Your task to perform on an android device: Open Reddit.com Image 0: 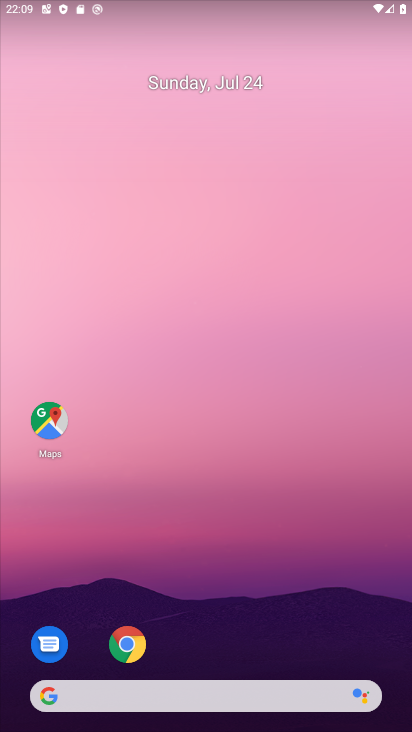
Step 0: click (130, 647)
Your task to perform on an android device: Open Reddit.com Image 1: 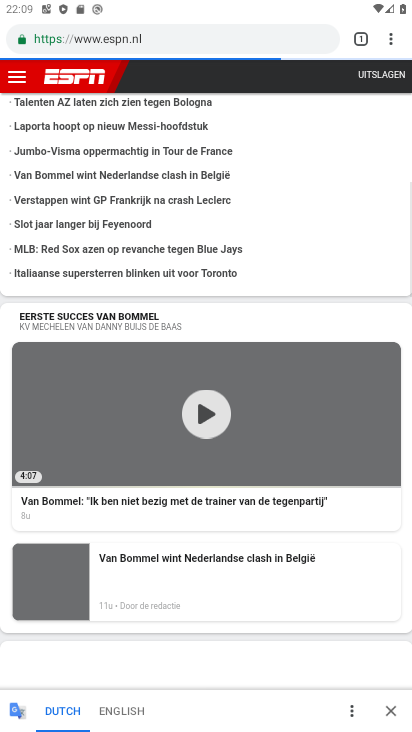
Step 1: click (184, 36)
Your task to perform on an android device: Open Reddit.com Image 2: 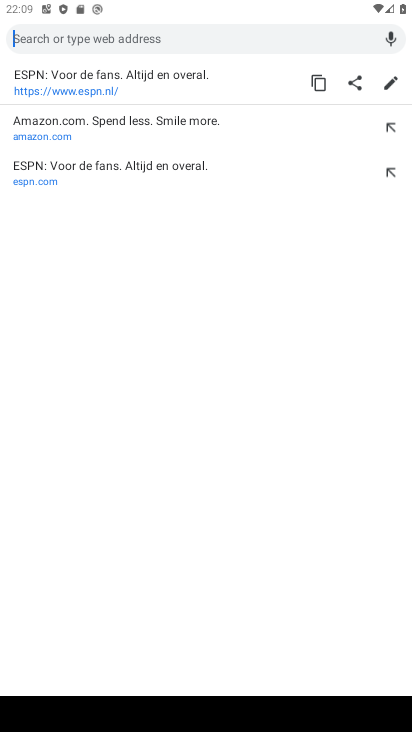
Step 2: type "Reddit.com"
Your task to perform on an android device: Open Reddit.com Image 3: 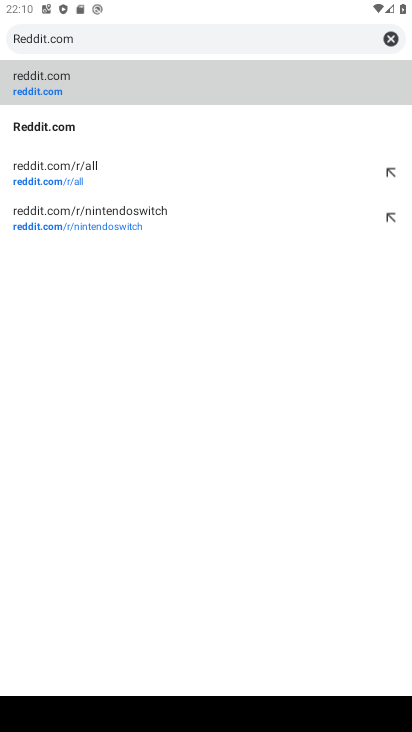
Step 3: click (74, 82)
Your task to perform on an android device: Open Reddit.com Image 4: 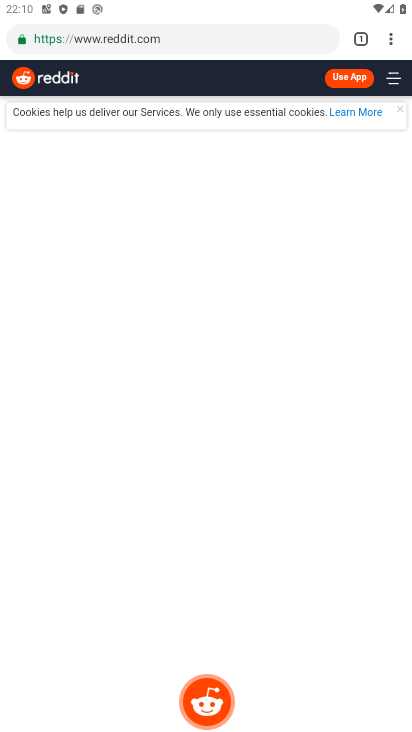
Step 4: task complete